Your task to perform on an android device: delete location history Image 0: 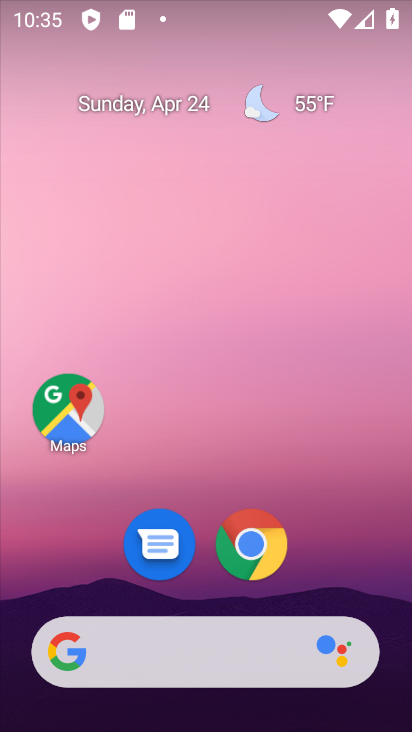
Step 0: drag from (333, 580) to (304, 119)
Your task to perform on an android device: delete location history Image 1: 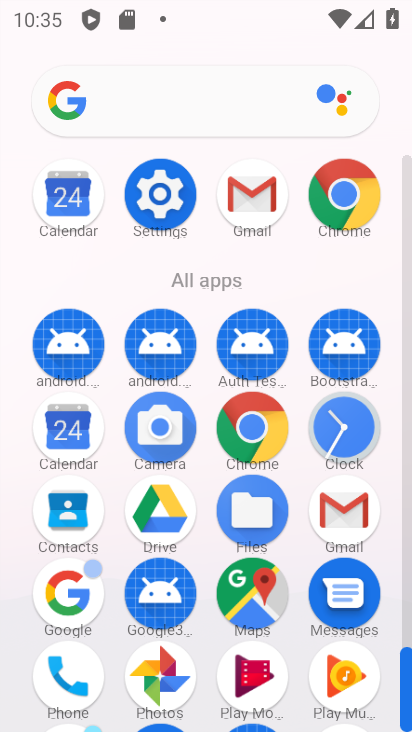
Step 1: click (237, 586)
Your task to perform on an android device: delete location history Image 2: 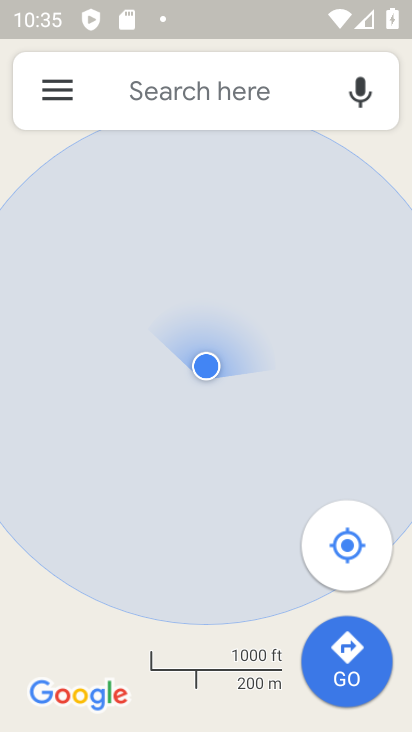
Step 2: click (43, 97)
Your task to perform on an android device: delete location history Image 3: 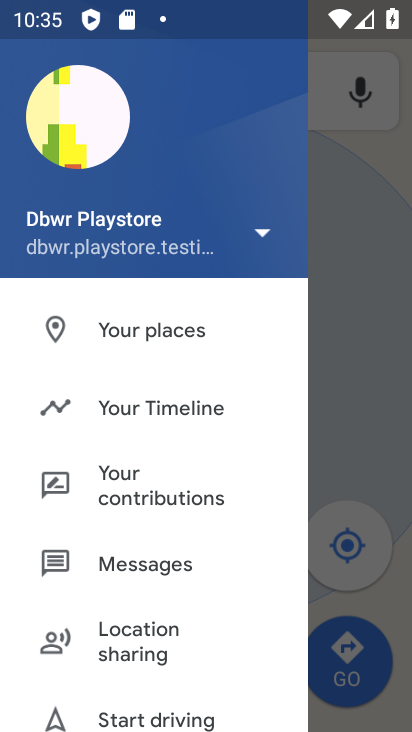
Step 3: drag from (130, 486) to (152, 195)
Your task to perform on an android device: delete location history Image 4: 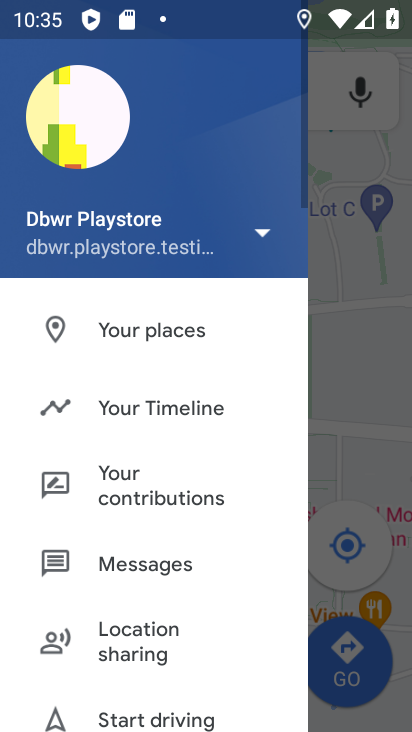
Step 4: drag from (145, 664) to (136, 149)
Your task to perform on an android device: delete location history Image 5: 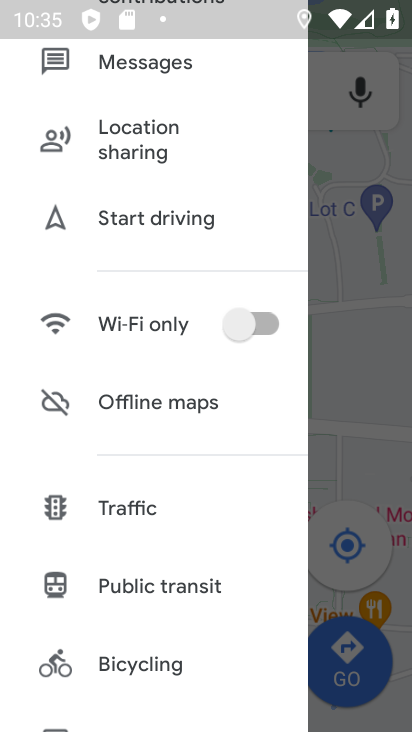
Step 5: drag from (137, 652) to (123, 236)
Your task to perform on an android device: delete location history Image 6: 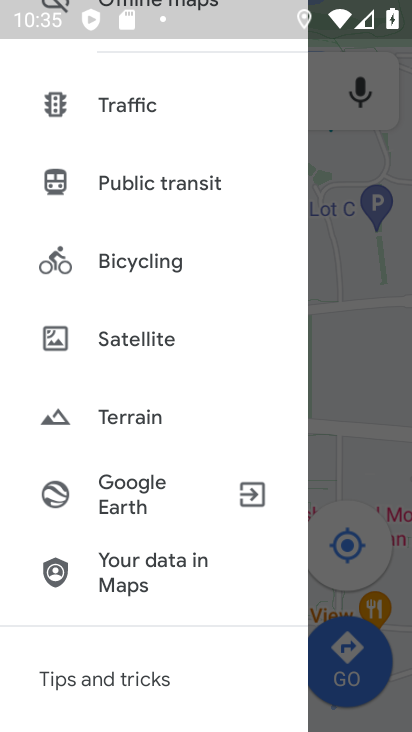
Step 6: drag from (142, 593) to (137, 239)
Your task to perform on an android device: delete location history Image 7: 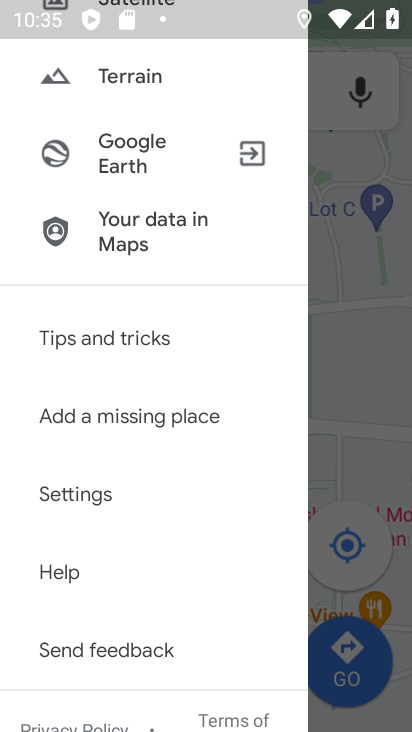
Step 7: click (73, 493)
Your task to perform on an android device: delete location history Image 8: 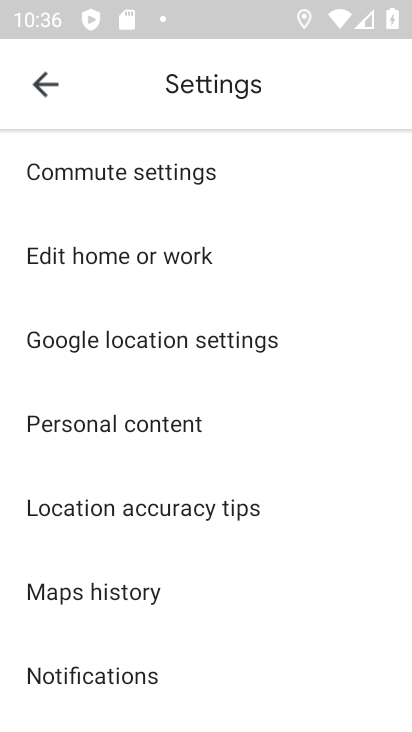
Step 8: drag from (192, 608) to (215, 192)
Your task to perform on an android device: delete location history Image 9: 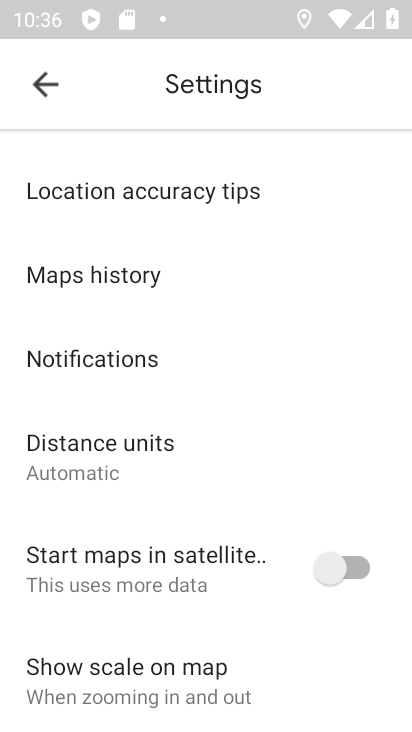
Step 9: drag from (140, 671) to (171, 248)
Your task to perform on an android device: delete location history Image 10: 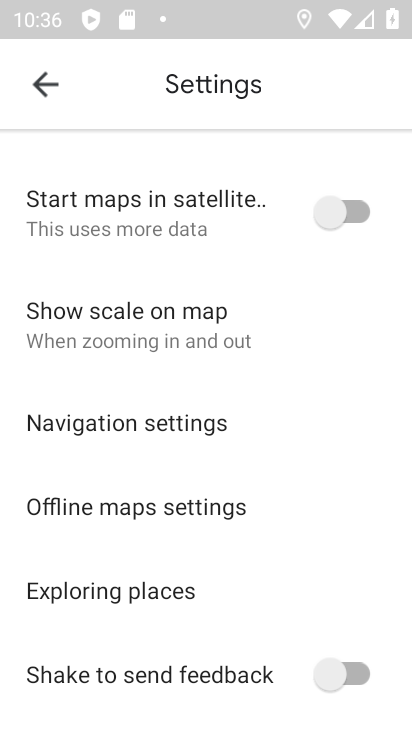
Step 10: drag from (123, 598) to (177, 194)
Your task to perform on an android device: delete location history Image 11: 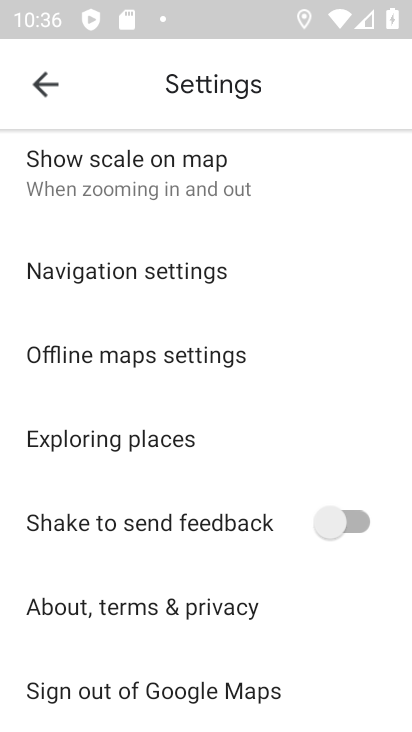
Step 11: click (177, 267)
Your task to perform on an android device: delete location history Image 12: 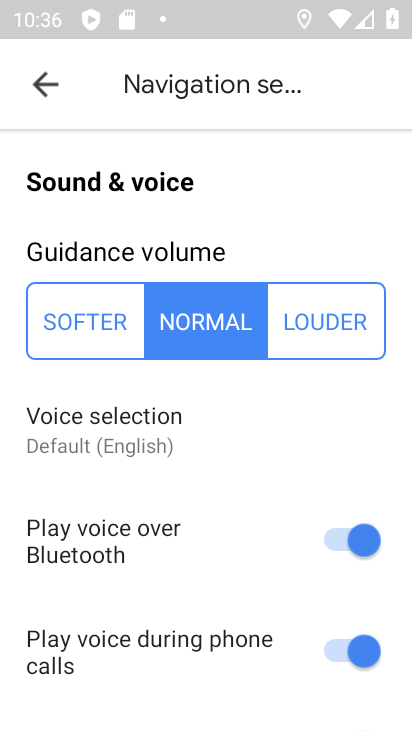
Step 12: press back button
Your task to perform on an android device: delete location history Image 13: 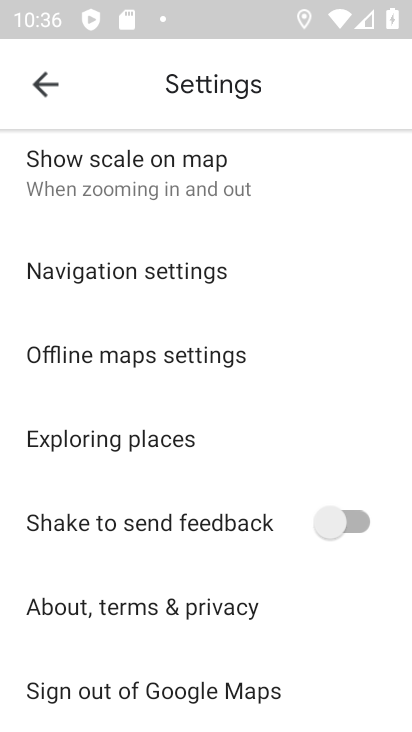
Step 13: click (192, 358)
Your task to perform on an android device: delete location history Image 14: 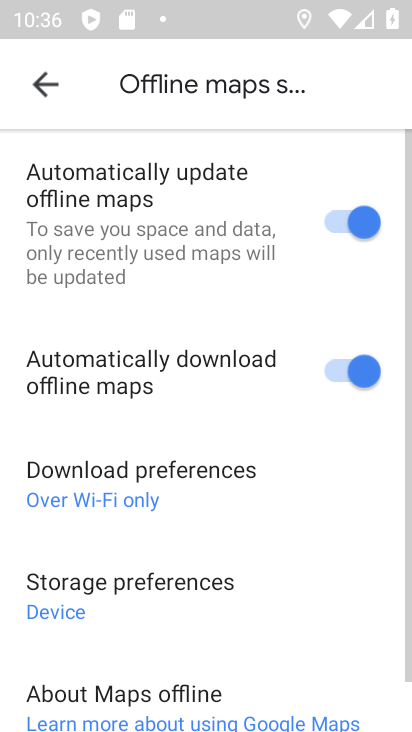
Step 14: drag from (212, 662) to (233, 209)
Your task to perform on an android device: delete location history Image 15: 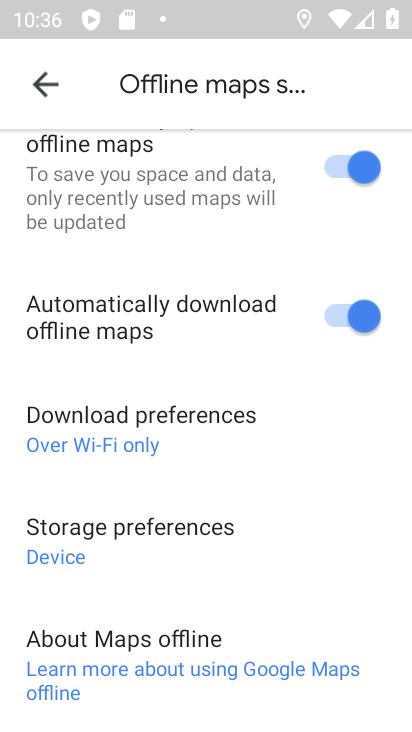
Step 15: press back button
Your task to perform on an android device: delete location history Image 16: 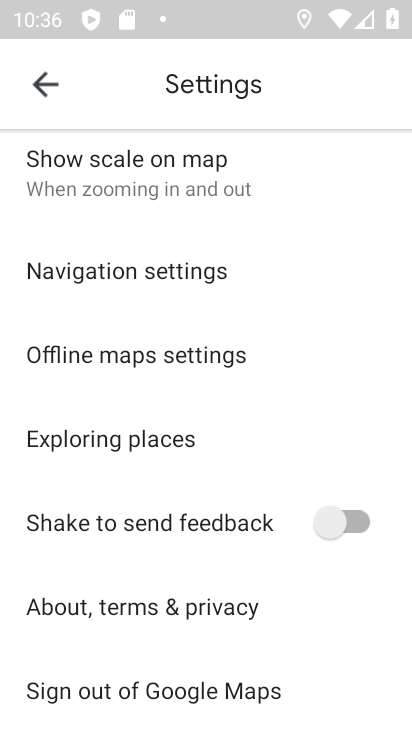
Step 16: drag from (207, 227) to (182, 657)
Your task to perform on an android device: delete location history Image 17: 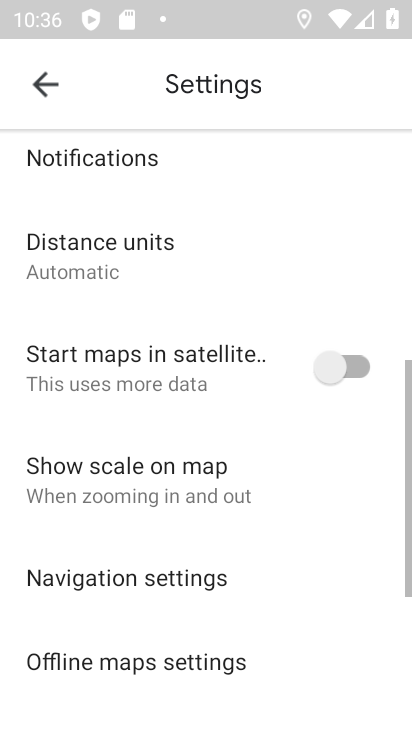
Step 17: drag from (196, 236) to (194, 583)
Your task to perform on an android device: delete location history Image 18: 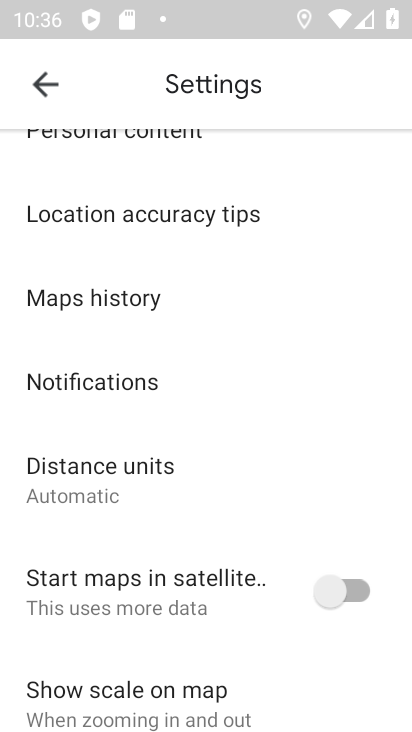
Step 18: click (148, 300)
Your task to perform on an android device: delete location history Image 19: 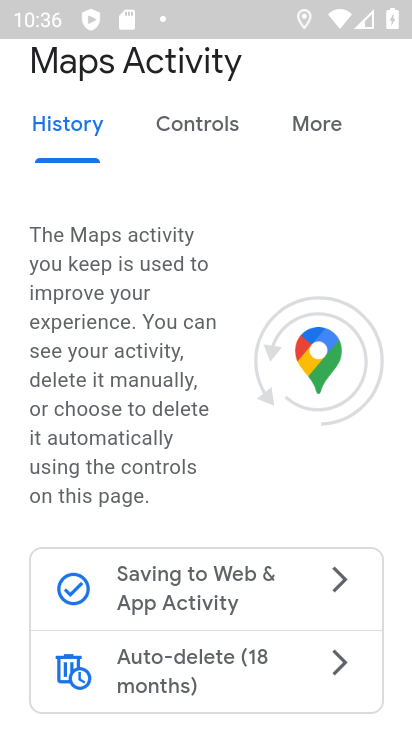
Step 19: drag from (215, 606) to (222, 211)
Your task to perform on an android device: delete location history Image 20: 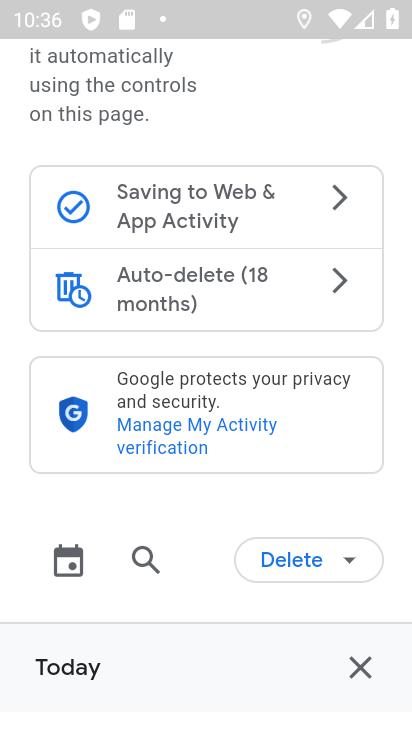
Step 20: drag from (292, 617) to (296, 453)
Your task to perform on an android device: delete location history Image 21: 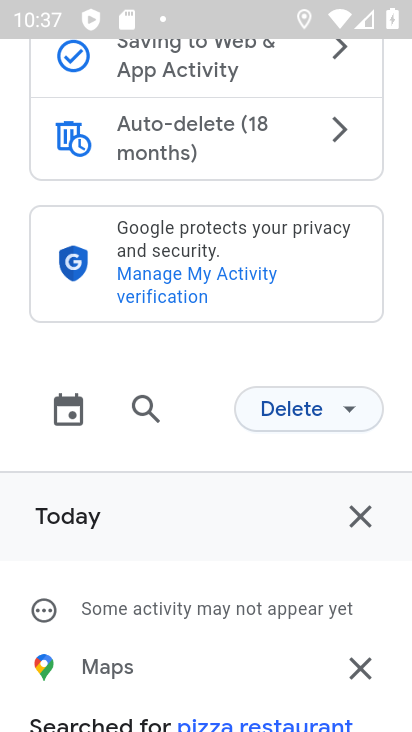
Step 21: click (282, 414)
Your task to perform on an android device: delete location history Image 22: 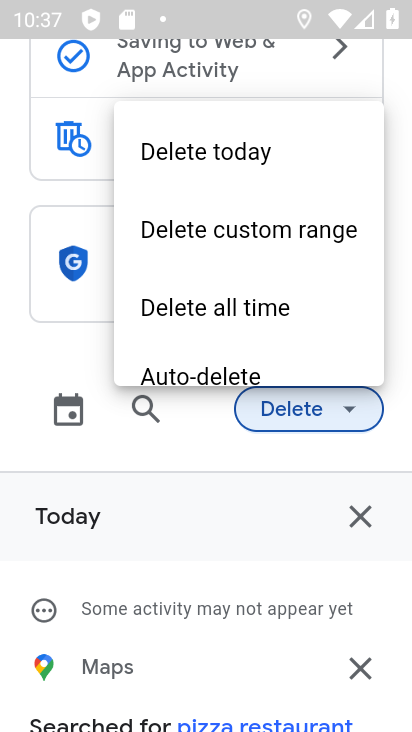
Step 22: click (231, 309)
Your task to perform on an android device: delete location history Image 23: 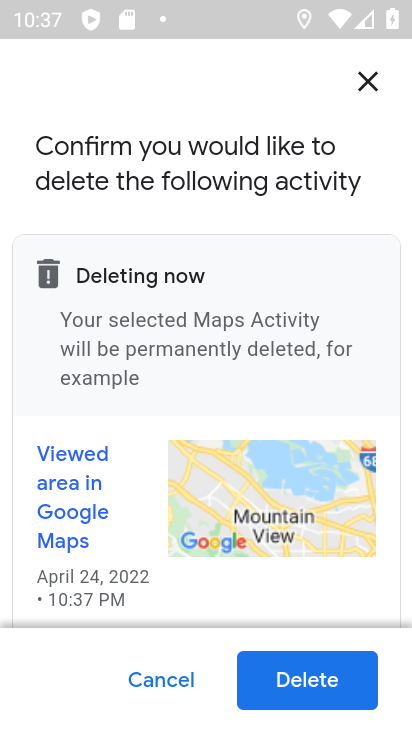
Step 23: click (290, 679)
Your task to perform on an android device: delete location history Image 24: 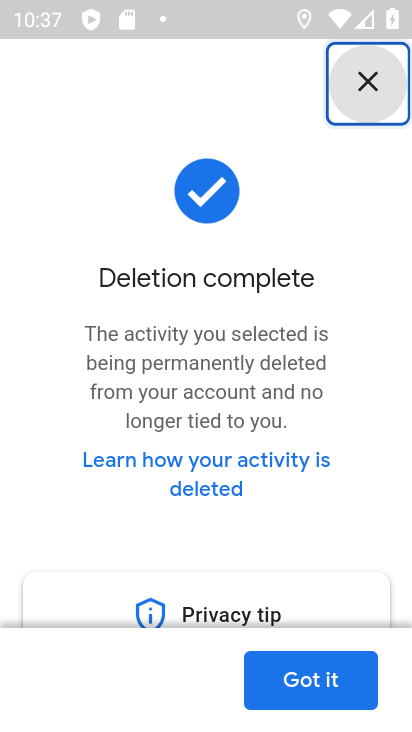
Step 24: click (290, 679)
Your task to perform on an android device: delete location history Image 25: 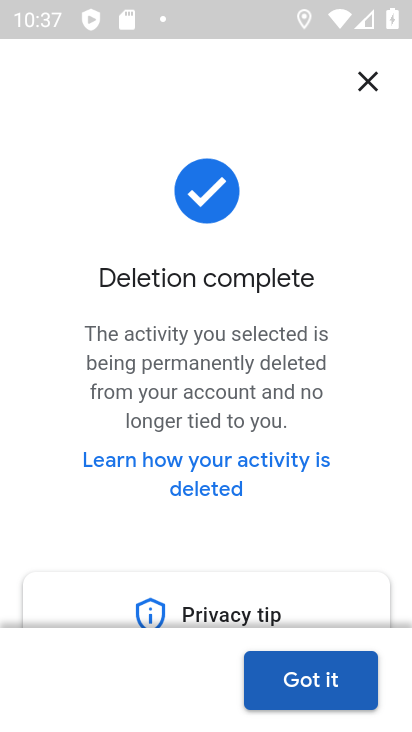
Step 25: task complete